Your task to perform on an android device: set an alarm Image 0: 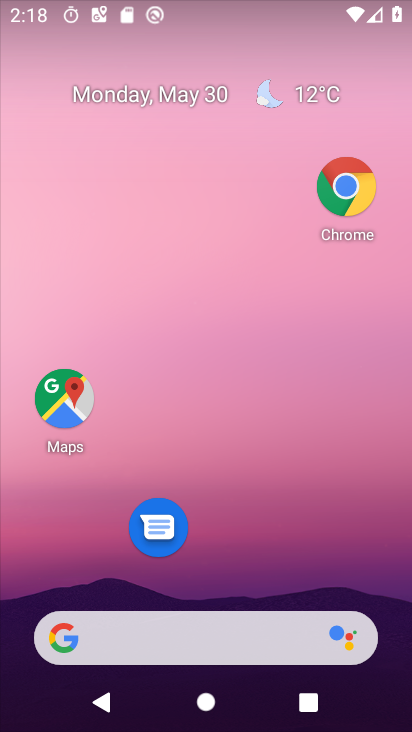
Step 0: drag from (213, 592) to (188, 78)
Your task to perform on an android device: set an alarm Image 1: 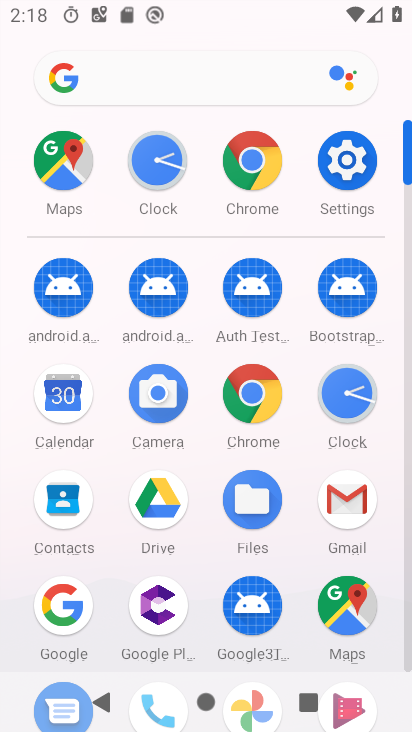
Step 1: click (350, 391)
Your task to perform on an android device: set an alarm Image 2: 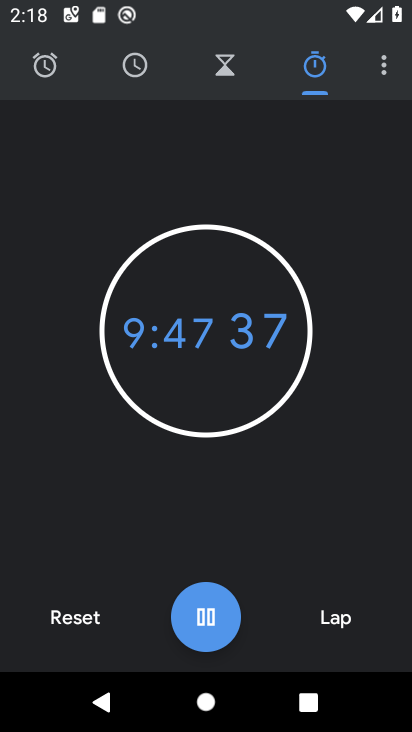
Step 2: click (45, 72)
Your task to perform on an android device: set an alarm Image 3: 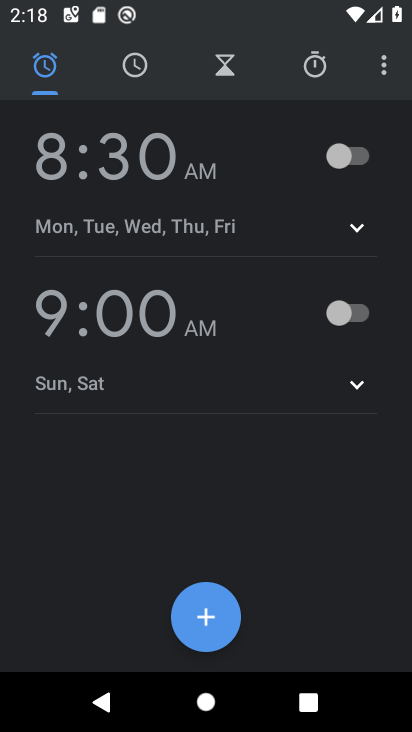
Step 3: click (354, 155)
Your task to perform on an android device: set an alarm Image 4: 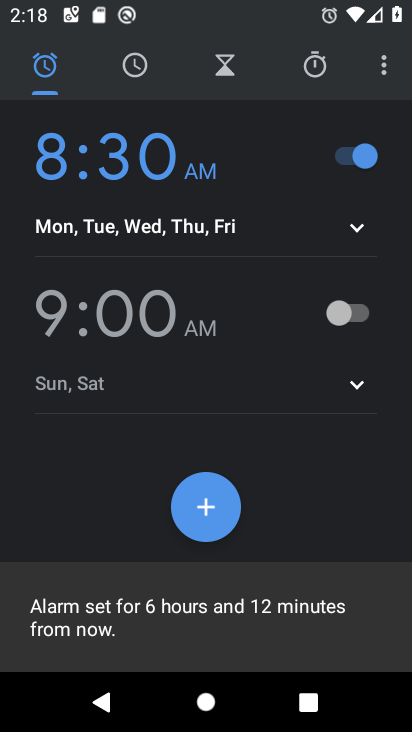
Step 4: task complete